Your task to perform on an android device: stop showing notifications on the lock screen Image 0: 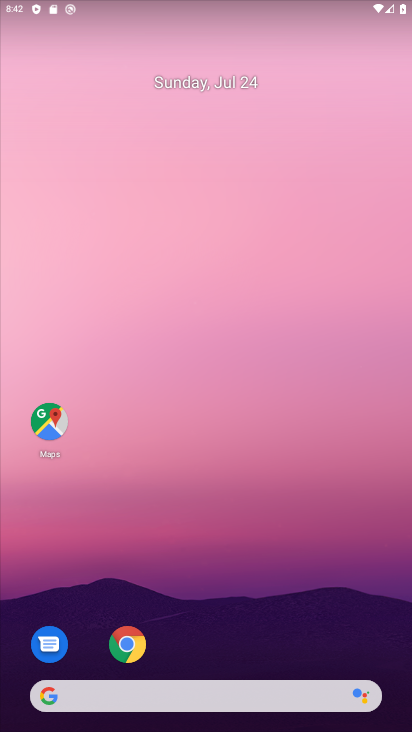
Step 0: drag from (240, 639) to (274, 2)
Your task to perform on an android device: stop showing notifications on the lock screen Image 1: 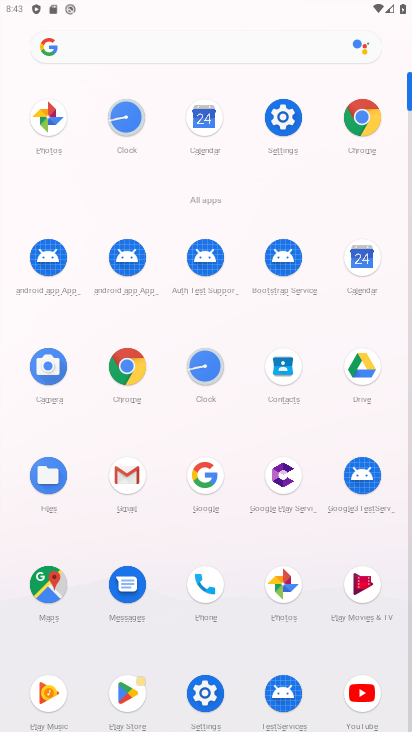
Step 1: click (210, 681)
Your task to perform on an android device: stop showing notifications on the lock screen Image 2: 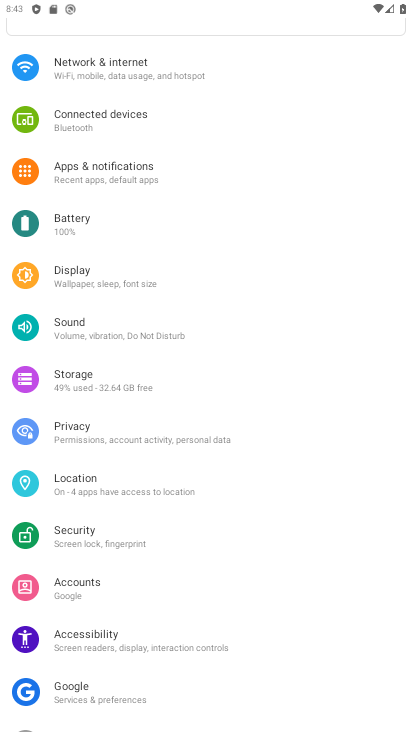
Step 2: drag from (215, 191) to (219, 678)
Your task to perform on an android device: stop showing notifications on the lock screen Image 3: 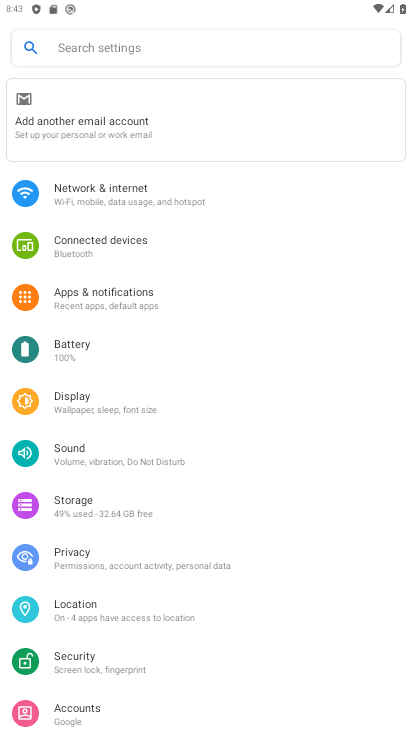
Step 3: click (125, 288)
Your task to perform on an android device: stop showing notifications on the lock screen Image 4: 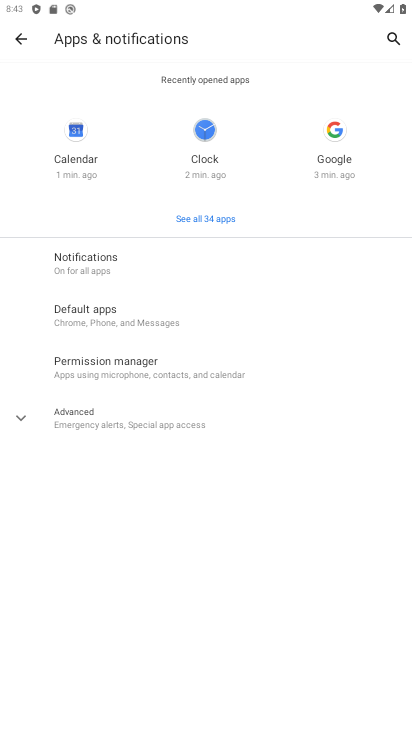
Step 4: click (80, 268)
Your task to perform on an android device: stop showing notifications on the lock screen Image 5: 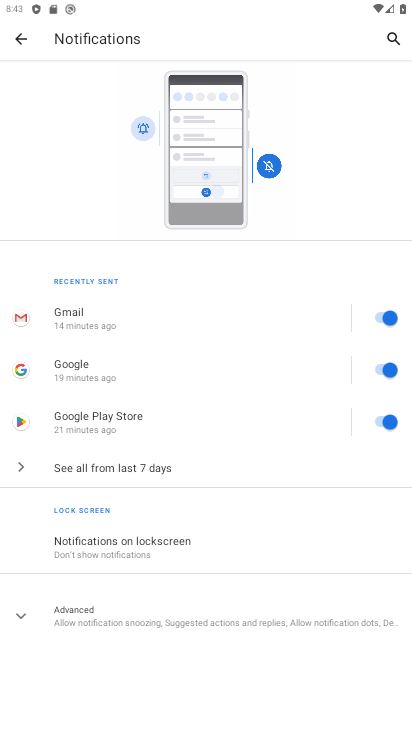
Step 5: click (157, 535)
Your task to perform on an android device: stop showing notifications on the lock screen Image 6: 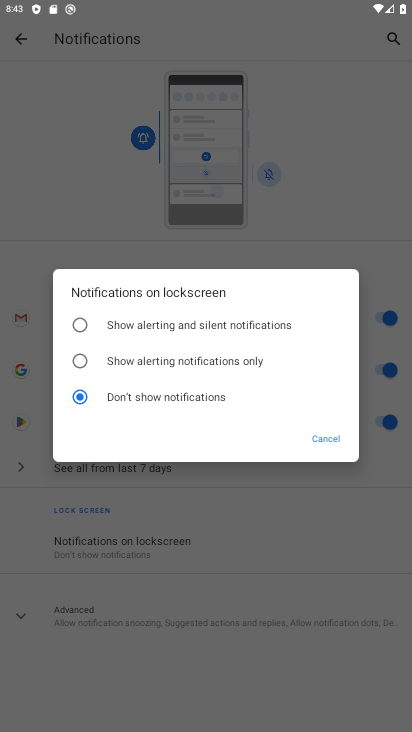
Step 6: task complete